Your task to perform on an android device: Go to location settings Image 0: 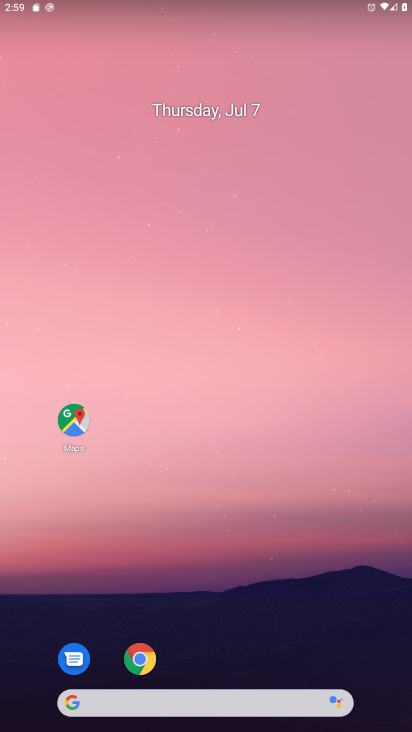
Step 0: drag from (181, 696) to (142, 181)
Your task to perform on an android device: Go to location settings Image 1: 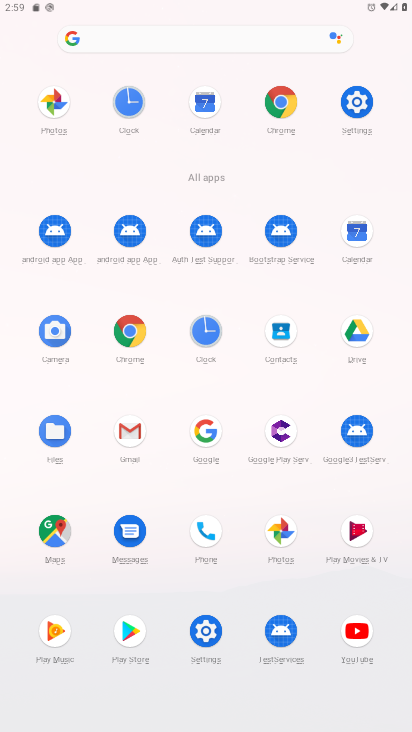
Step 1: click (352, 100)
Your task to perform on an android device: Go to location settings Image 2: 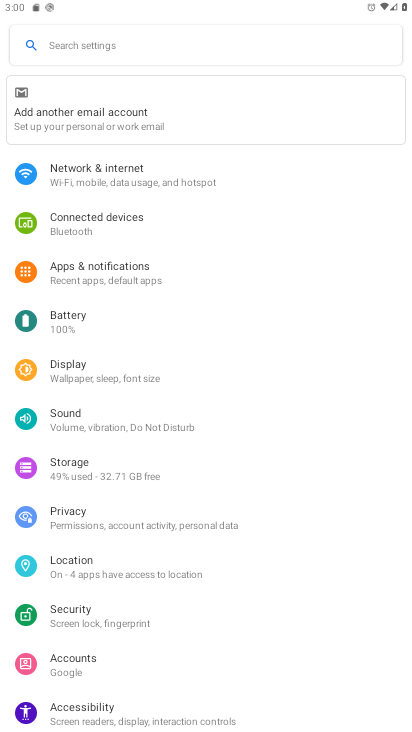
Step 2: click (88, 566)
Your task to perform on an android device: Go to location settings Image 3: 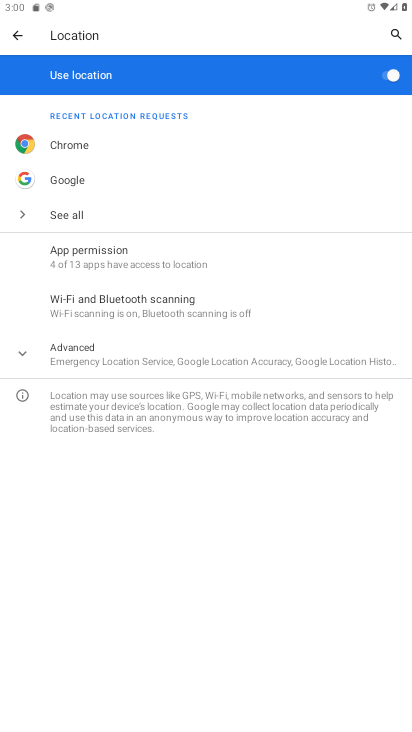
Step 3: task complete